Your task to perform on an android device: Open network settings Image 0: 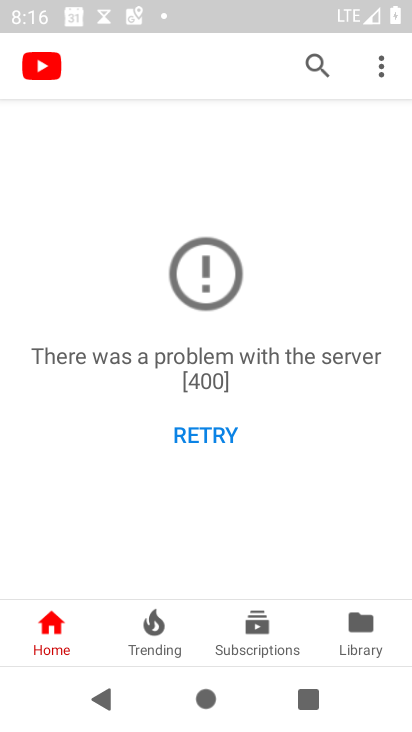
Step 0: press home button
Your task to perform on an android device: Open network settings Image 1: 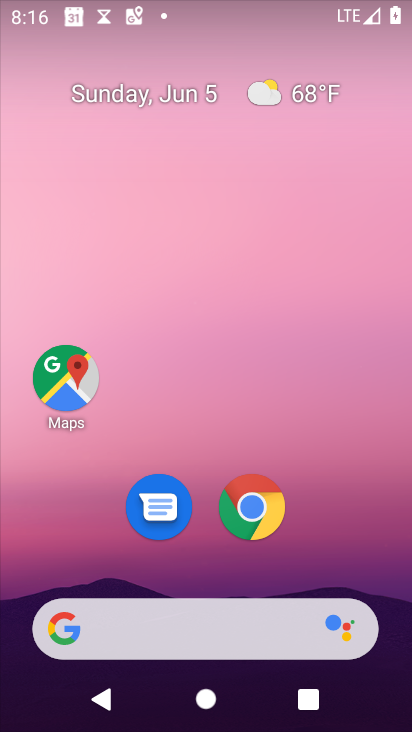
Step 1: drag from (192, 540) to (302, 8)
Your task to perform on an android device: Open network settings Image 2: 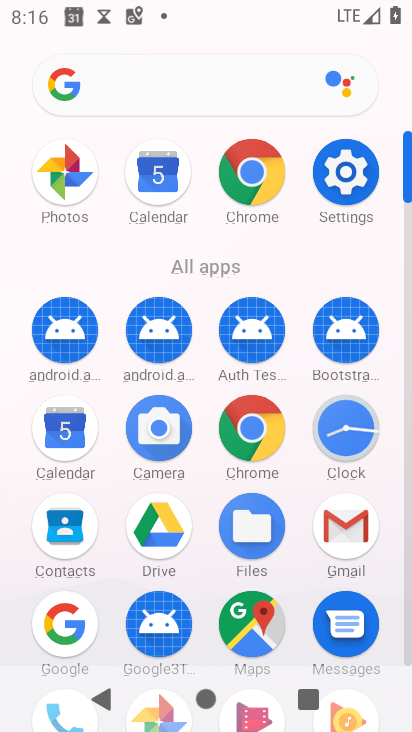
Step 2: click (356, 197)
Your task to perform on an android device: Open network settings Image 3: 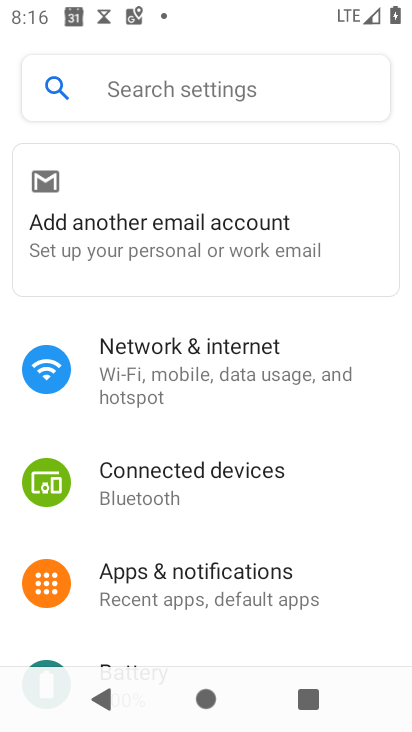
Step 3: click (233, 385)
Your task to perform on an android device: Open network settings Image 4: 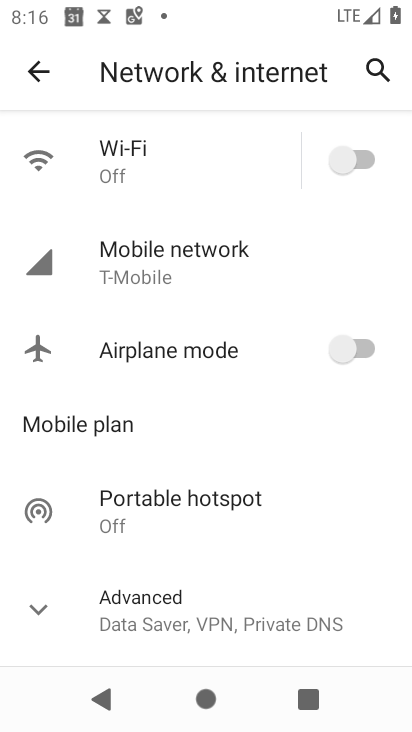
Step 4: task complete